Your task to perform on an android device: Check the news Image 0: 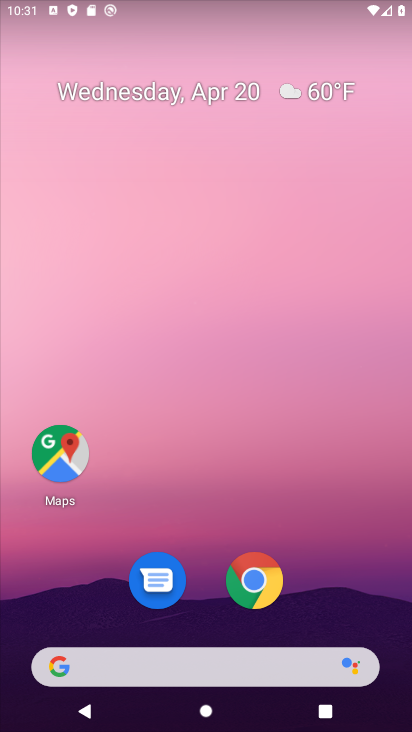
Step 0: drag from (133, 625) to (95, 66)
Your task to perform on an android device: Check the news Image 1: 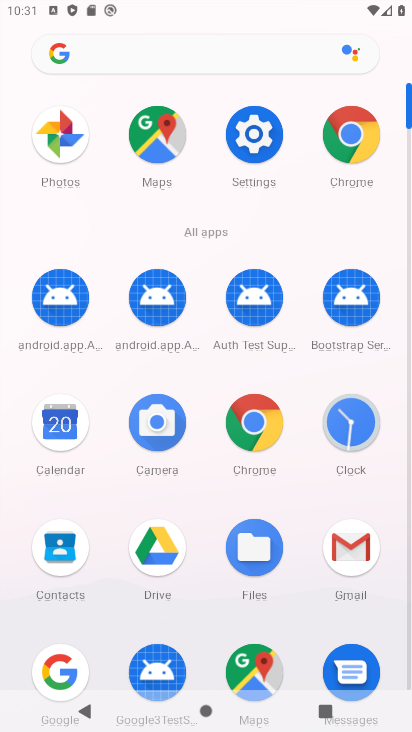
Step 1: click (56, 658)
Your task to perform on an android device: Check the news Image 2: 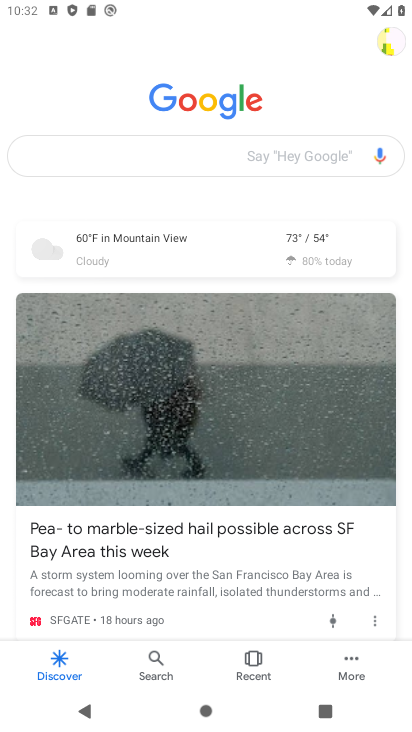
Step 2: task complete